Your task to perform on an android device: open sync settings in chrome Image 0: 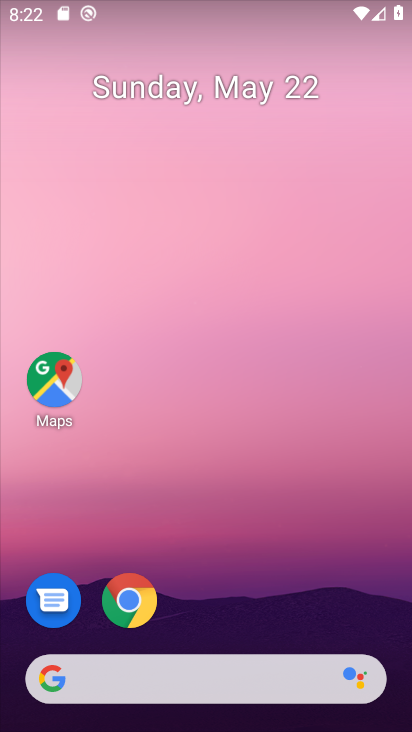
Step 0: click (139, 627)
Your task to perform on an android device: open sync settings in chrome Image 1: 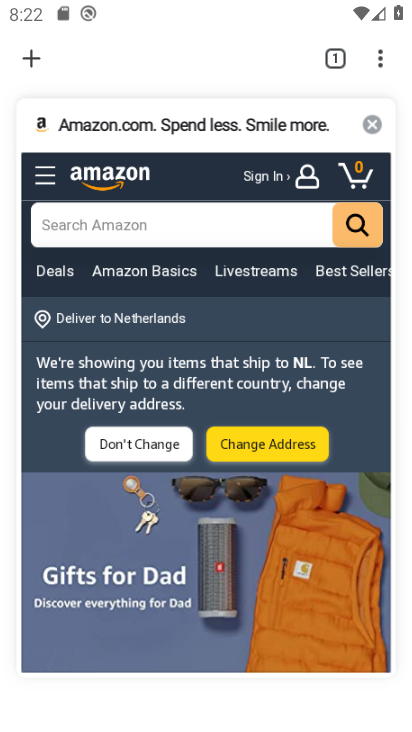
Step 1: click (388, 49)
Your task to perform on an android device: open sync settings in chrome Image 2: 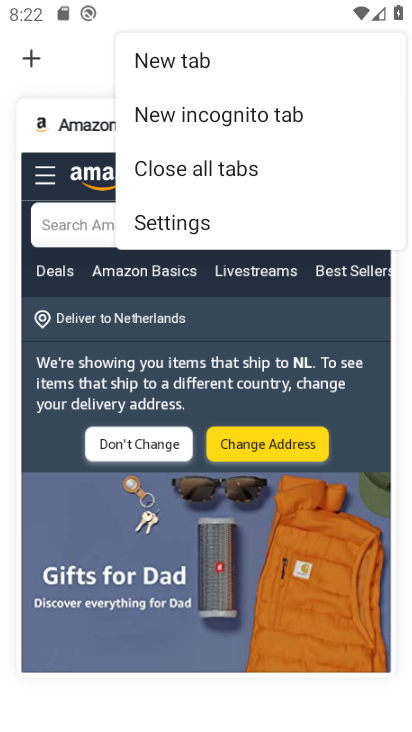
Step 2: click (163, 216)
Your task to perform on an android device: open sync settings in chrome Image 3: 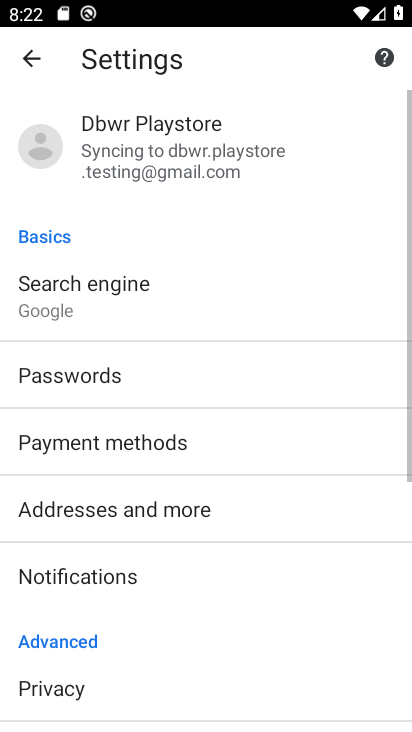
Step 3: click (160, 139)
Your task to perform on an android device: open sync settings in chrome Image 4: 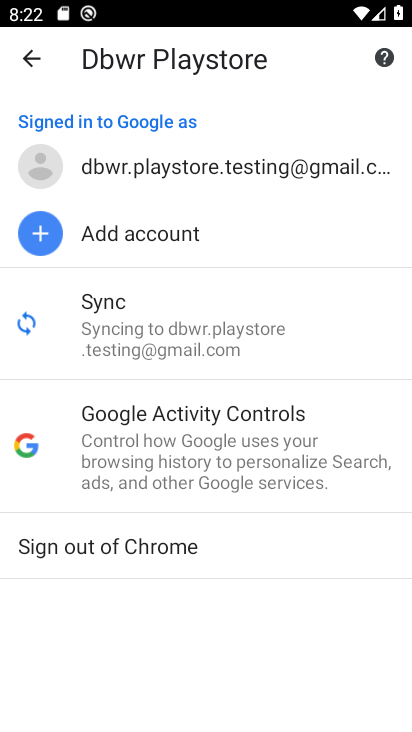
Step 4: click (146, 333)
Your task to perform on an android device: open sync settings in chrome Image 5: 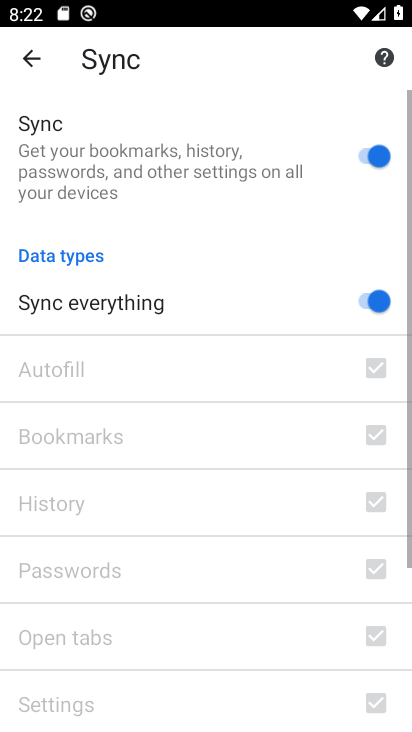
Step 5: task complete